Your task to perform on an android device: open app "Microsoft Authenticator" (install if not already installed) and go to login screen Image 0: 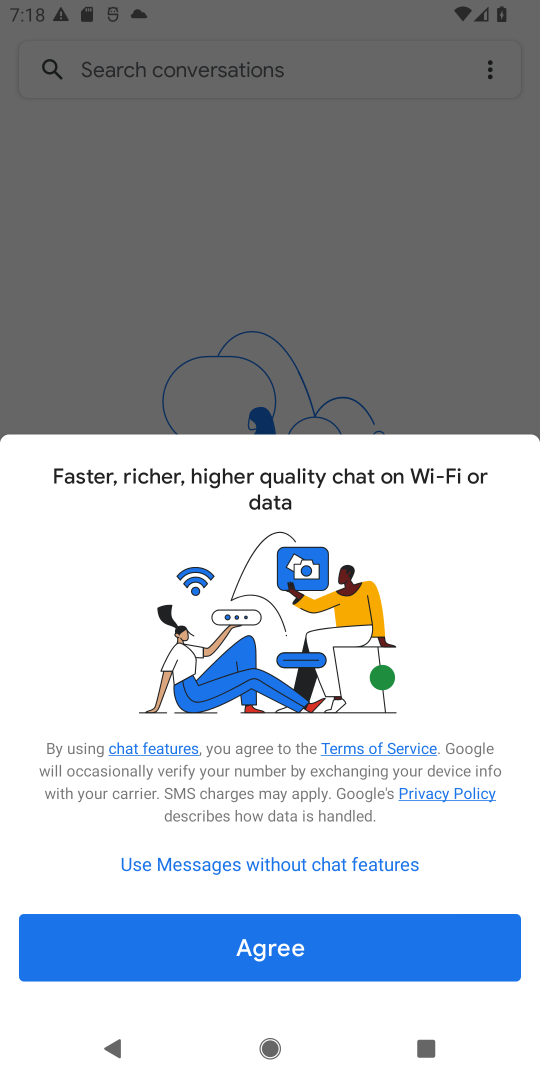
Step 0: press home button
Your task to perform on an android device: open app "Microsoft Authenticator" (install if not already installed) and go to login screen Image 1: 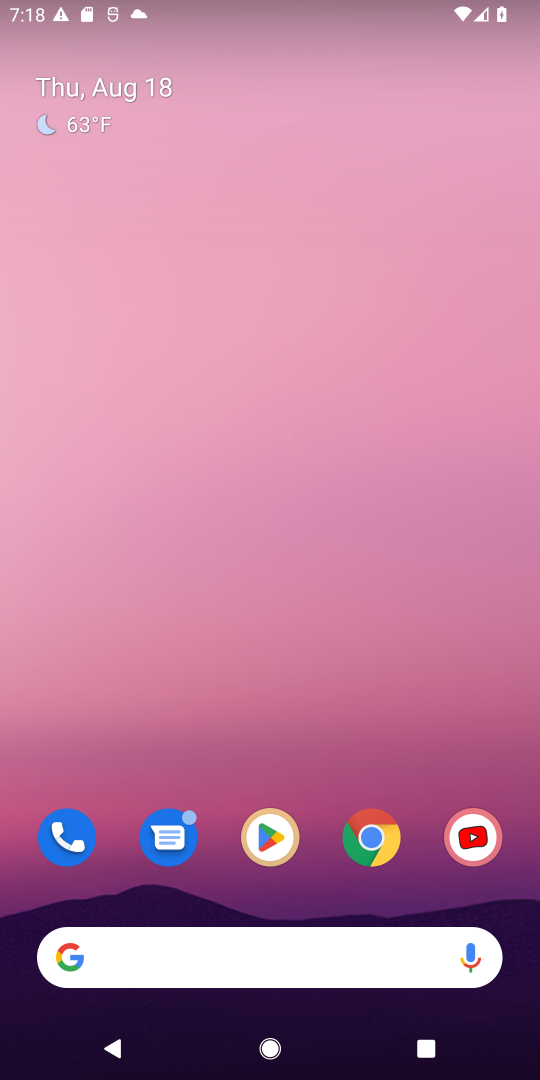
Step 1: drag from (269, 848) to (342, 125)
Your task to perform on an android device: open app "Microsoft Authenticator" (install if not already installed) and go to login screen Image 2: 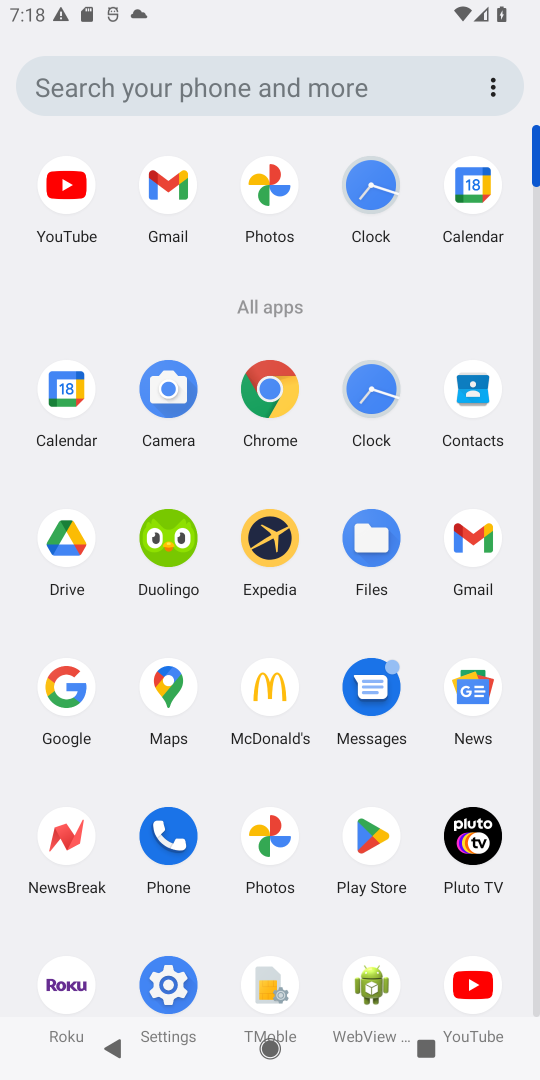
Step 2: click (363, 860)
Your task to perform on an android device: open app "Microsoft Authenticator" (install if not already installed) and go to login screen Image 3: 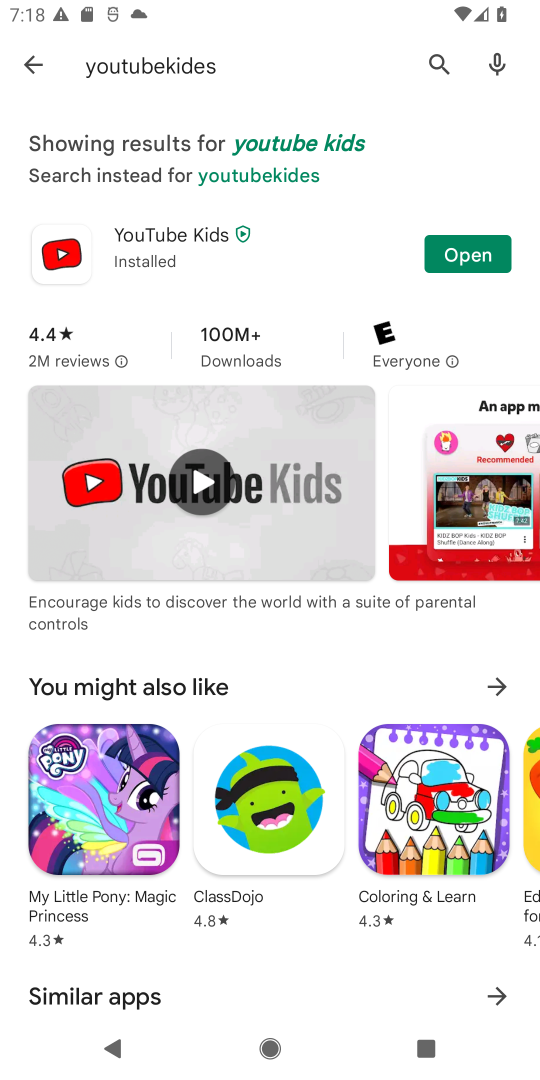
Step 3: click (203, 62)
Your task to perform on an android device: open app "Microsoft Authenticator" (install if not already installed) and go to login screen Image 4: 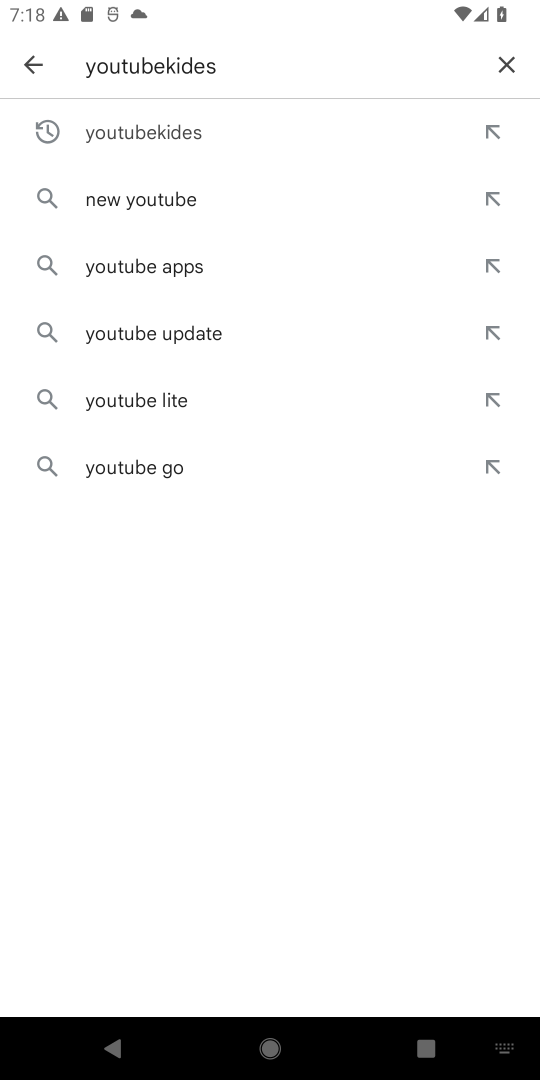
Step 4: click (504, 68)
Your task to perform on an android device: open app "Microsoft Authenticator" (install if not already installed) and go to login screen Image 5: 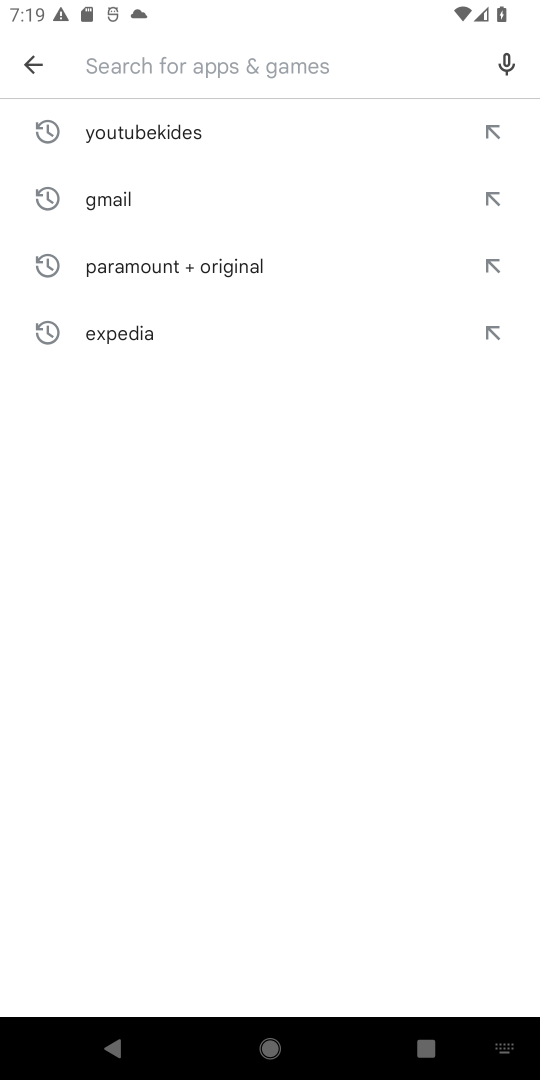
Step 5: type "microsoft Authenticator"
Your task to perform on an android device: open app "Microsoft Authenticator" (install if not already installed) and go to login screen Image 6: 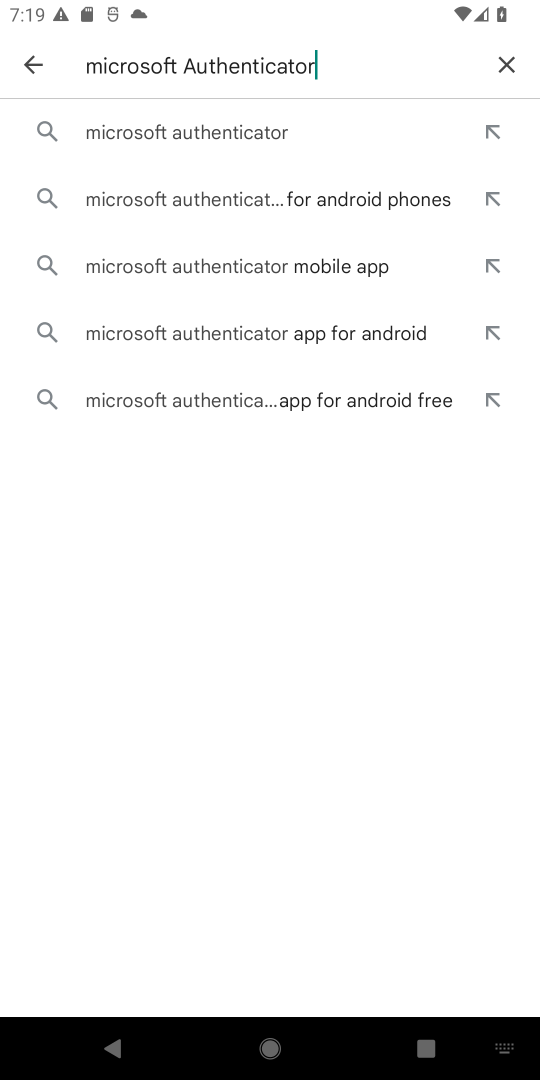
Step 6: click (222, 114)
Your task to perform on an android device: open app "Microsoft Authenticator" (install if not already installed) and go to login screen Image 7: 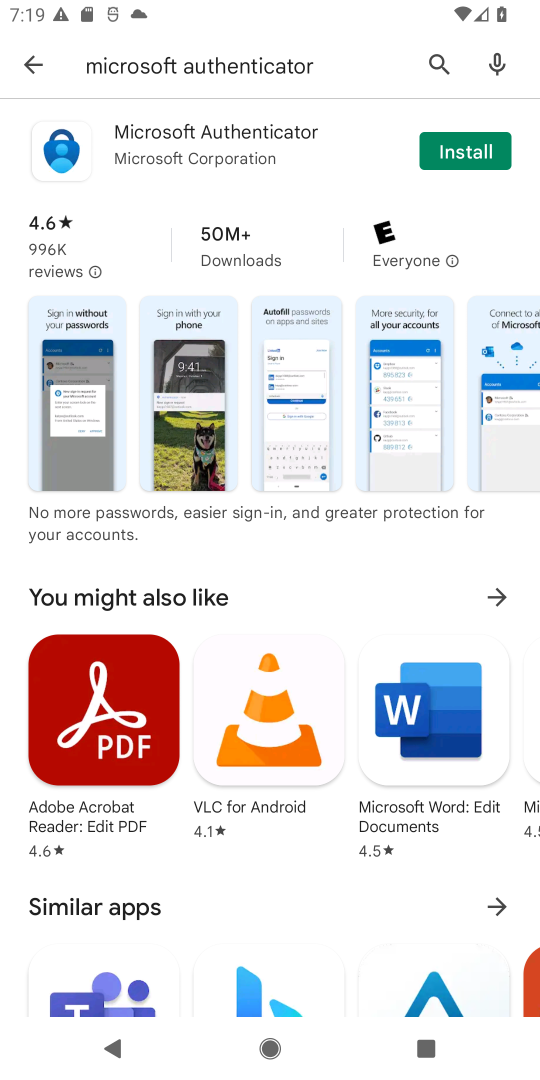
Step 7: click (473, 148)
Your task to perform on an android device: open app "Microsoft Authenticator" (install if not already installed) and go to login screen Image 8: 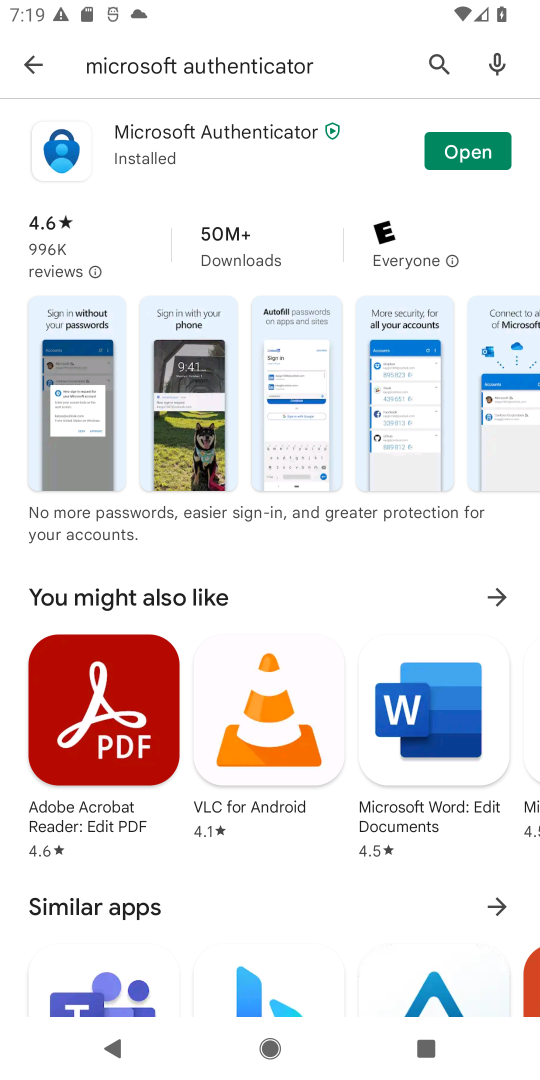
Step 8: click (481, 159)
Your task to perform on an android device: open app "Microsoft Authenticator" (install if not already installed) and go to login screen Image 9: 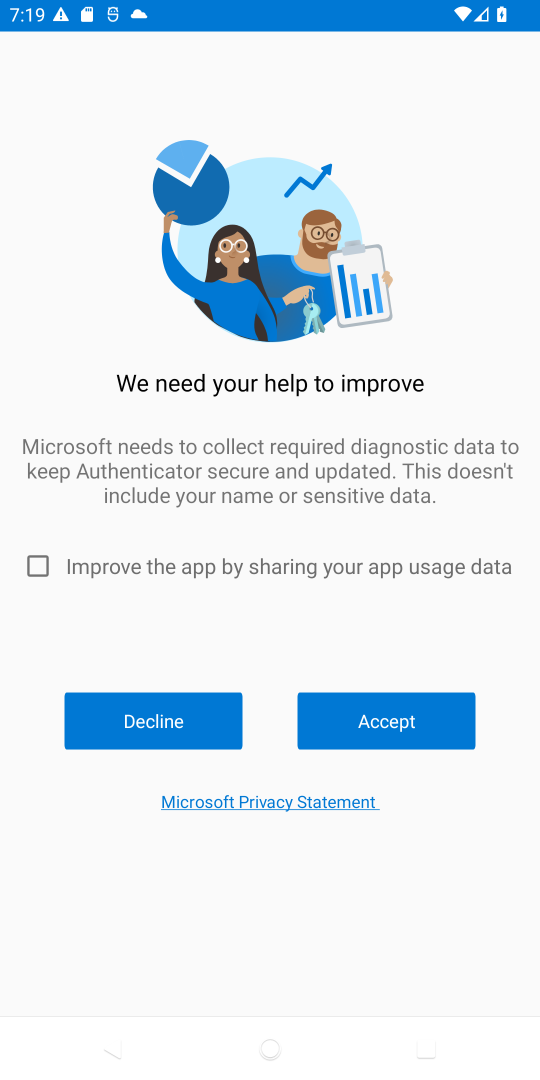
Step 9: click (54, 562)
Your task to perform on an android device: open app "Microsoft Authenticator" (install if not already installed) and go to login screen Image 10: 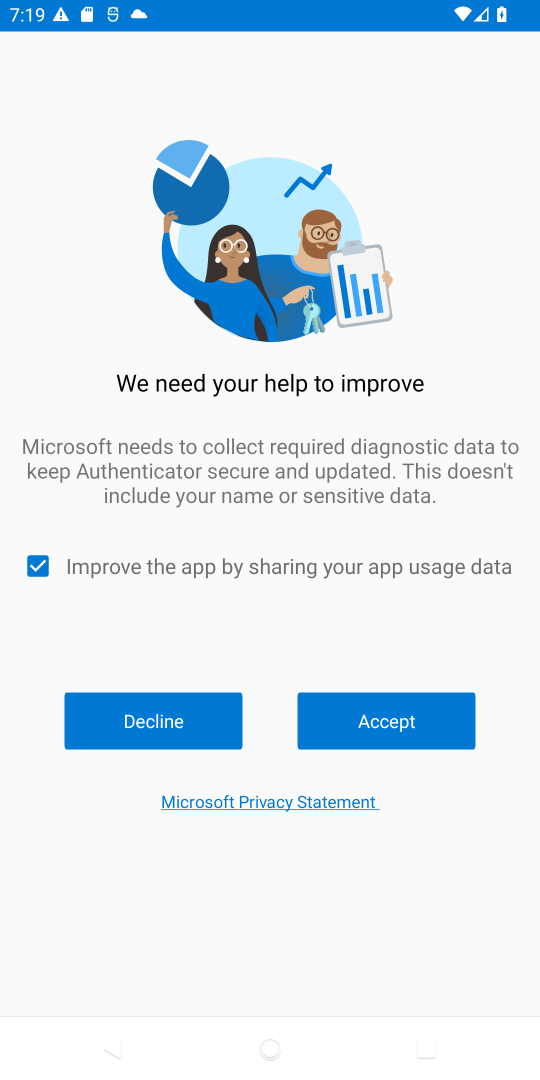
Step 10: click (440, 732)
Your task to perform on an android device: open app "Microsoft Authenticator" (install if not already installed) and go to login screen Image 11: 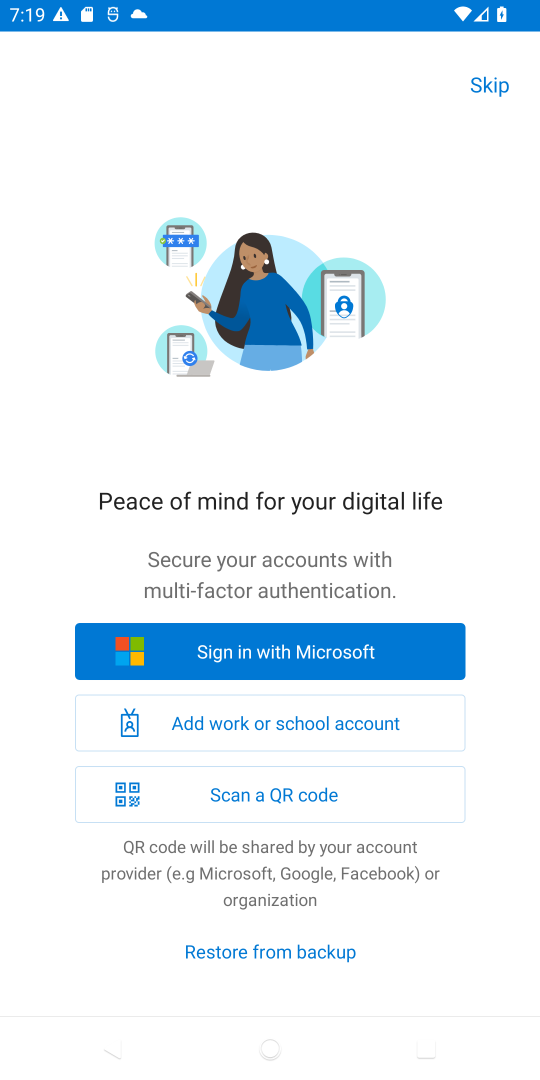
Step 11: click (502, 75)
Your task to perform on an android device: open app "Microsoft Authenticator" (install if not already installed) and go to login screen Image 12: 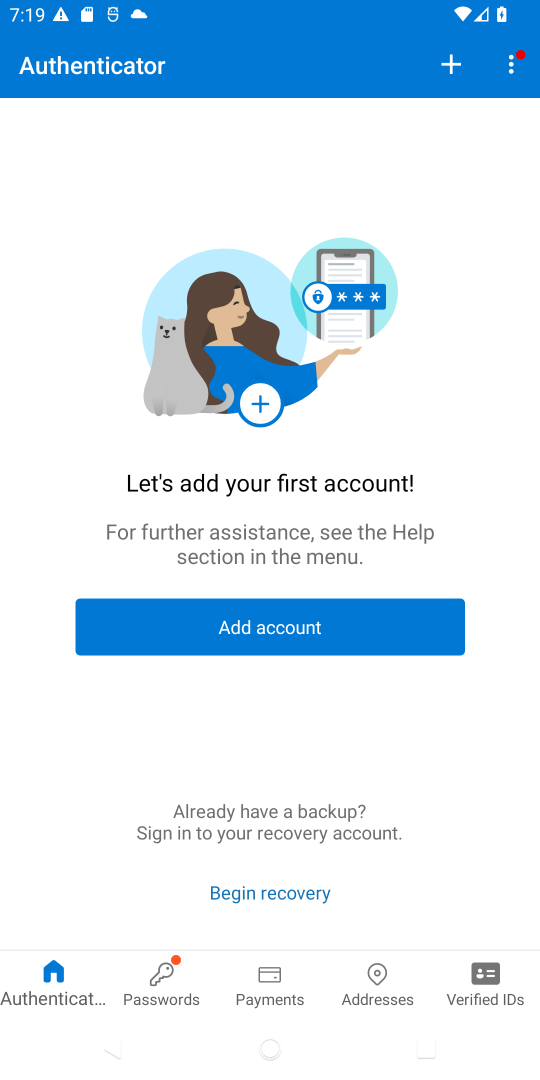
Step 12: task complete